Your task to perform on an android device: delete browsing data in the chrome app Image 0: 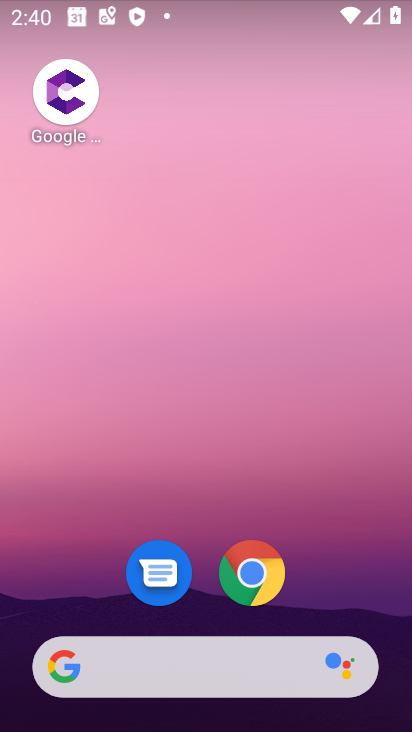
Step 0: click (252, 563)
Your task to perform on an android device: delete browsing data in the chrome app Image 1: 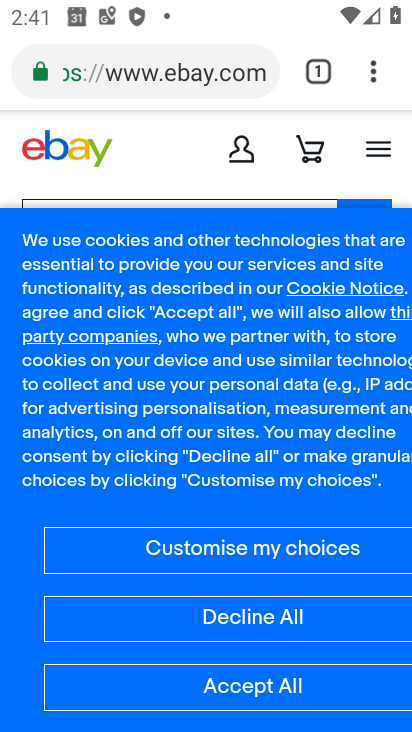
Step 1: click (377, 71)
Your task to perform on an android device: delete browsing data in the chrome app Image 2: 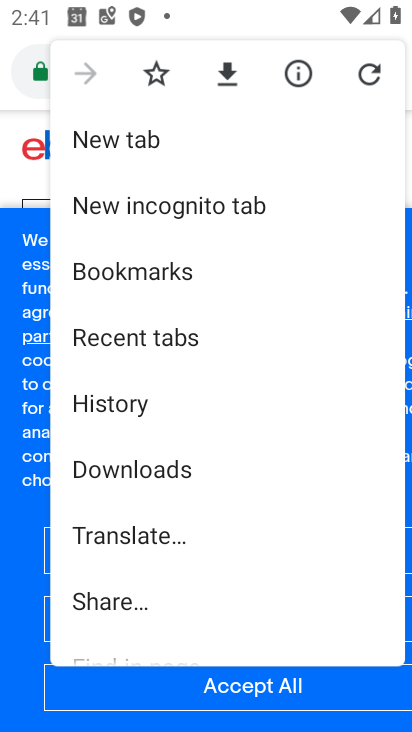
Step 2: click (114, 401)
Your task to perform on an android device: delete browsing data in the chrome app Image 3: 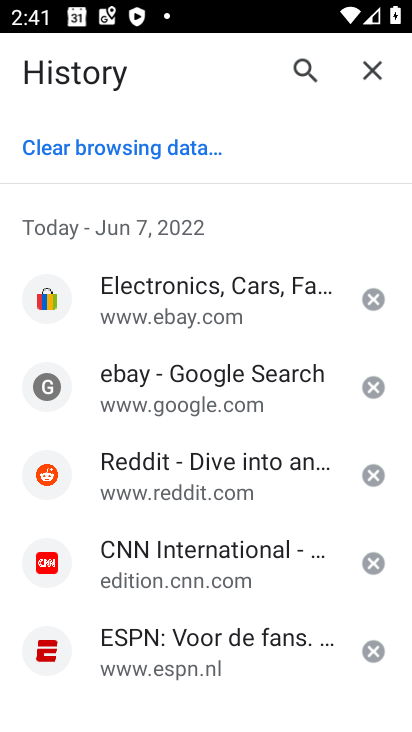
Step 3: click (105, 146)
Your task to perform on an android device: delete browsing data in the chrome app Image 4: 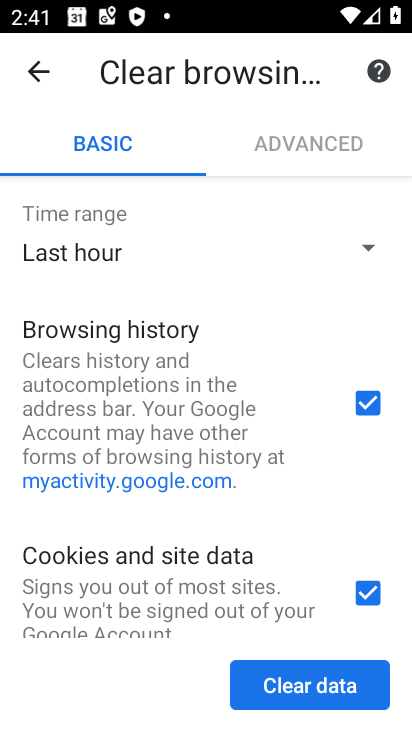
Step 4: click (328, 699)
Your task to perform on an android device: delete browsing data in the chrome app Image 5: 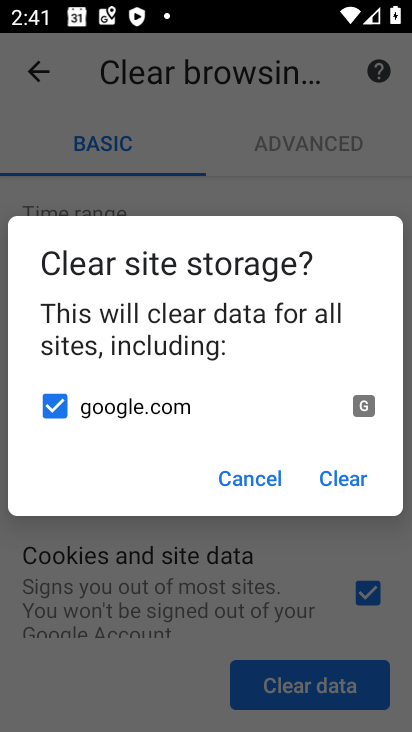
Step 5: click (345, 482)
Your task to perform on an android device: delete browsing data in the chrome app Image 6: 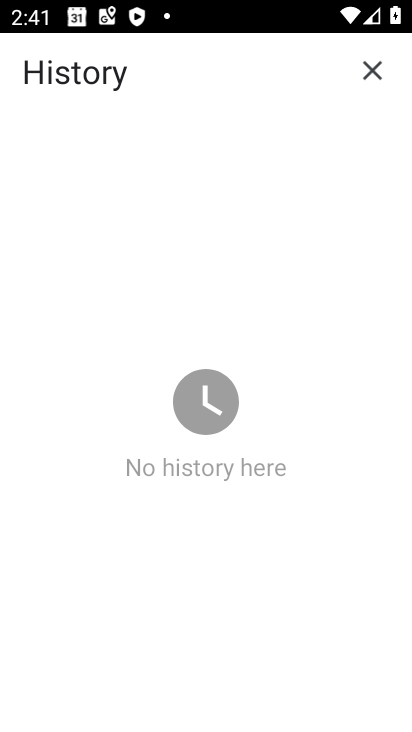
Step 6: task complete